Your task to perform on an android device: Do I have any events tomorrow? Image 0: 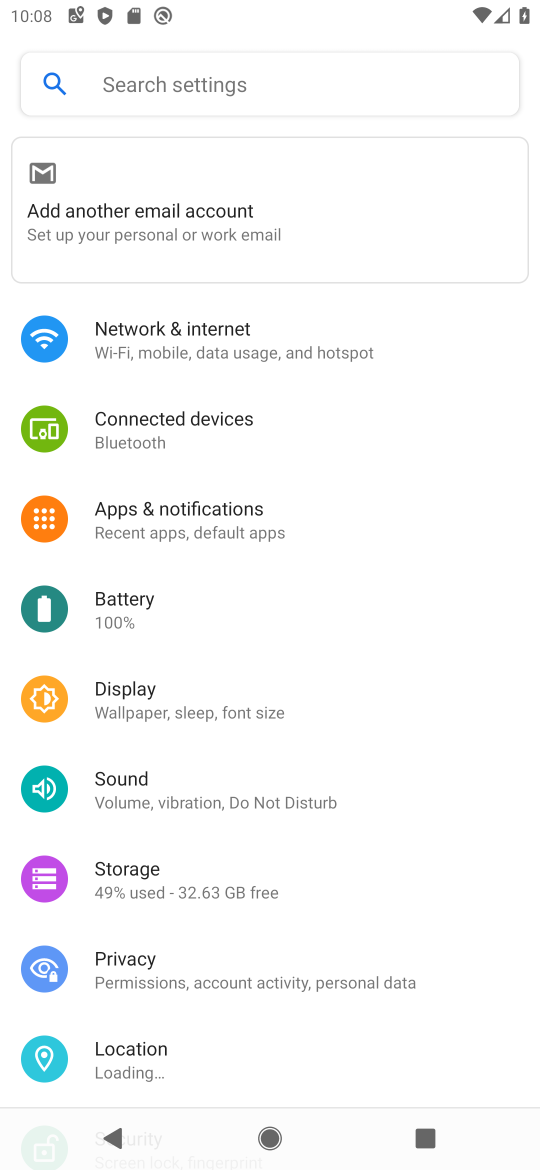
Step 0: press home button
Your task to perform on an android device: Do I have any events tomorrow? Image 1: 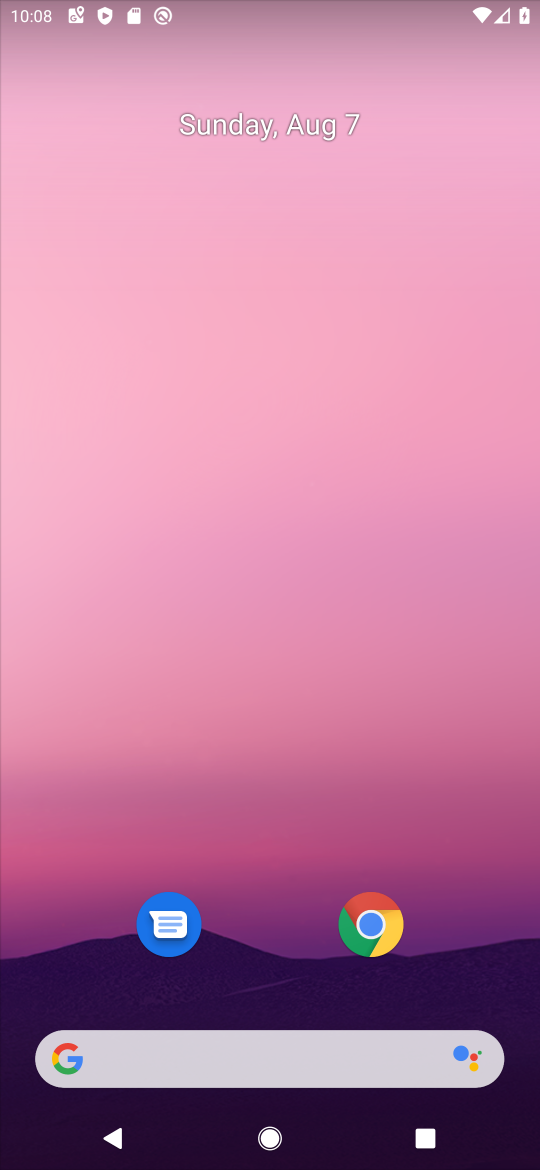
Step 1: drag from (482, 950) to (388, 482)
Your task to perform on an android device: Do I have any events tomorrow? Image 2: 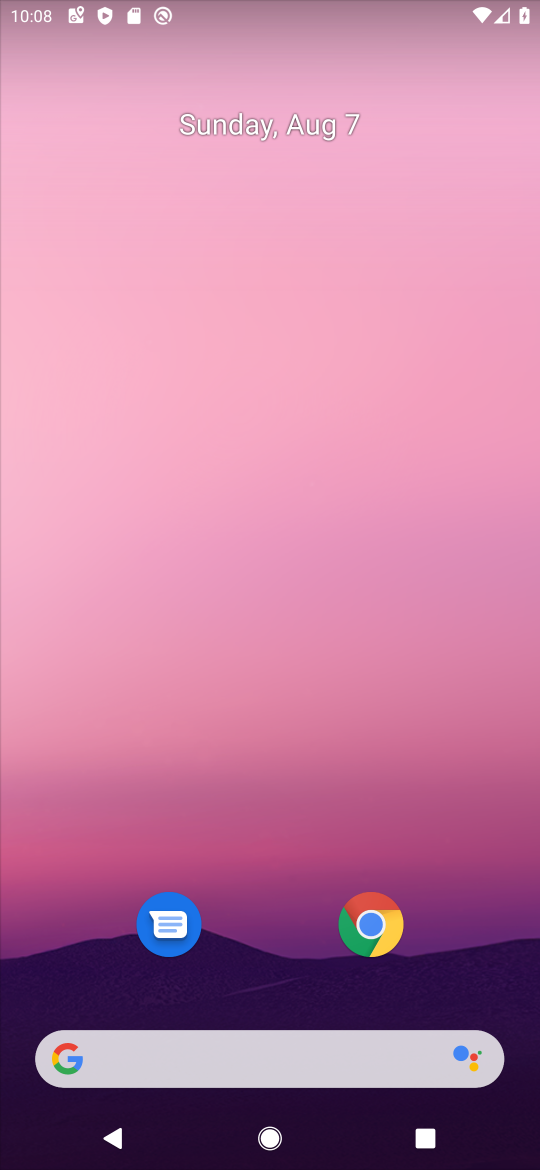
Step 2: drag from (487, 937) to (361, 393)
Your task to perform on an android device: Do I have any events tomorrow? Image 3: 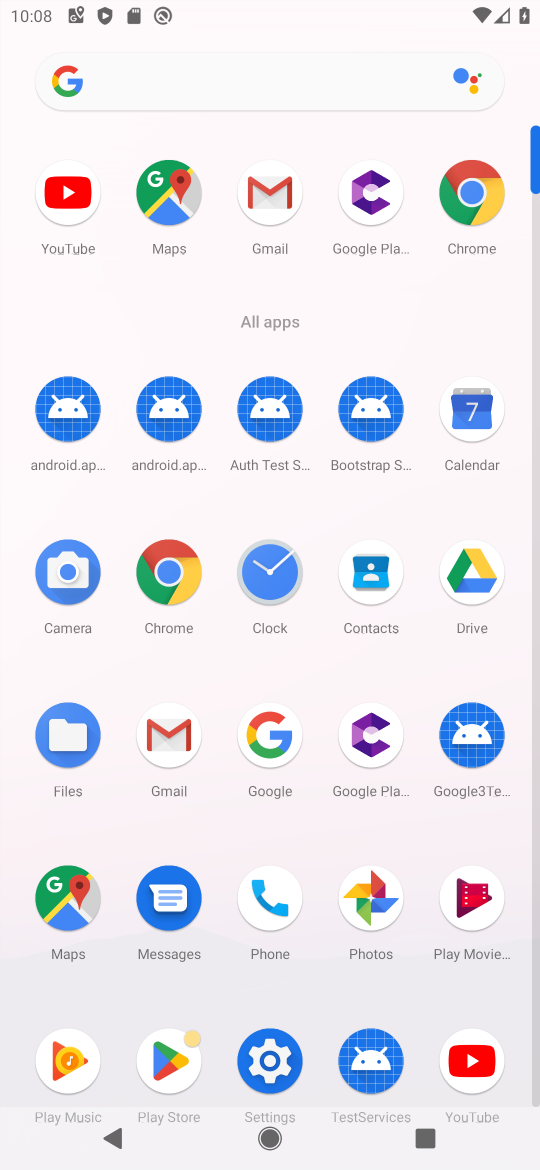
Step 3: click (473, 442)
Your task to perform on an android device: Do I have any events tomorrow? Image 4: 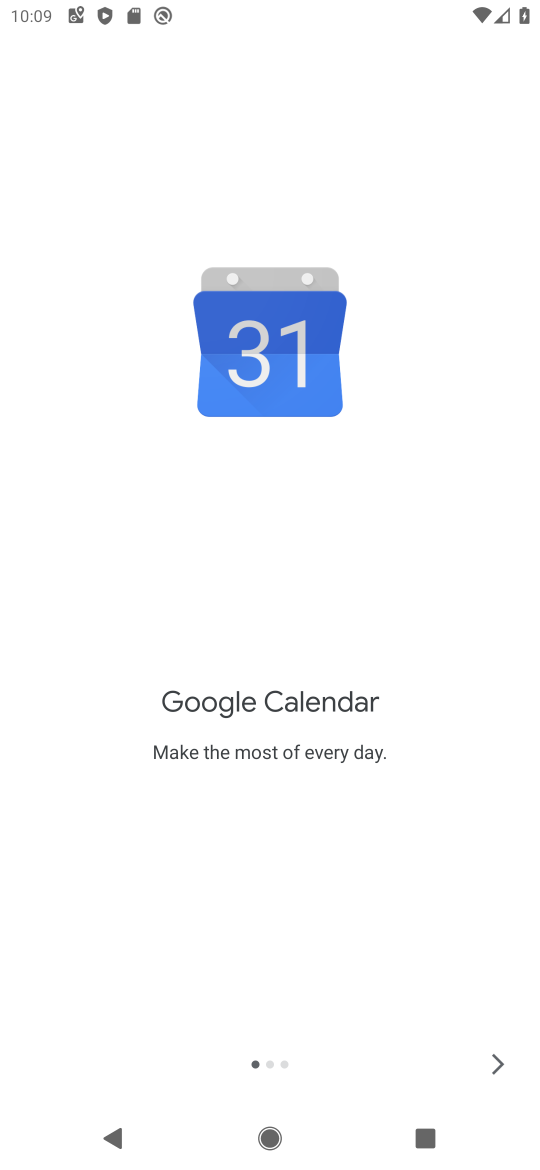
Step 4: click (503, 1074)
Your task to perform on an android device: Do I have any events tomorrow? Image 5: 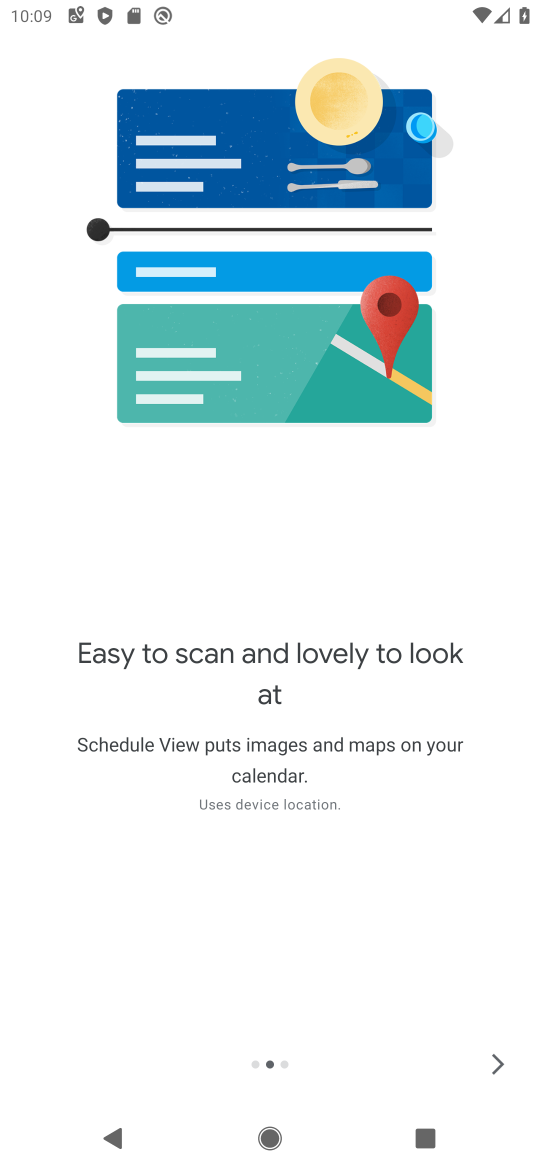
Step 5: click (503, 1074)
Your task to perform on an android device: Do I have any events tomorrow? Image 6: 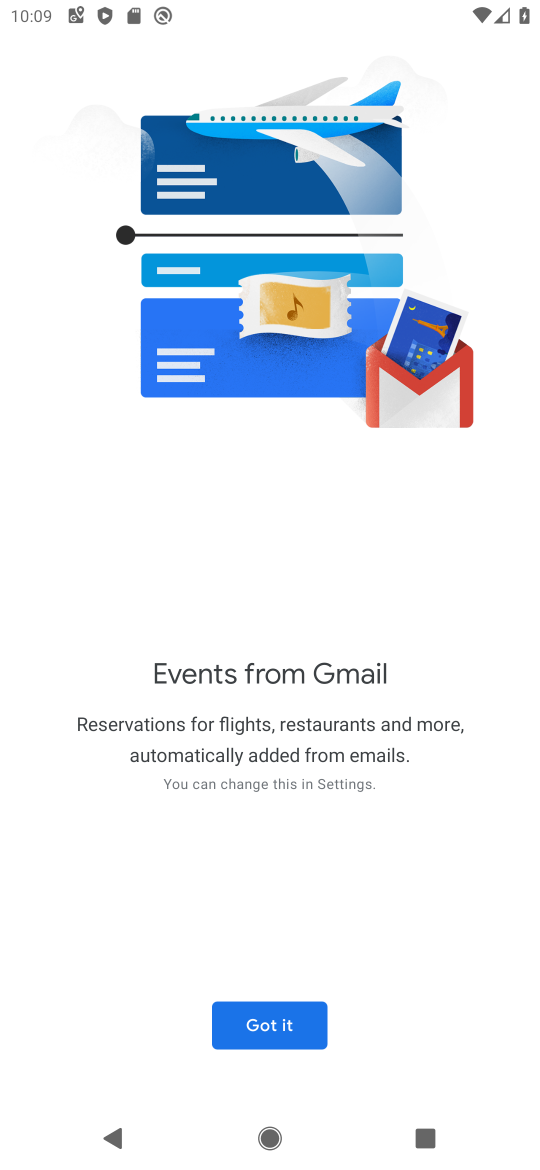
Step 6: click (281, 1029)
Your task to perform on an android device: Do I have any events tomorrow? Image 7: 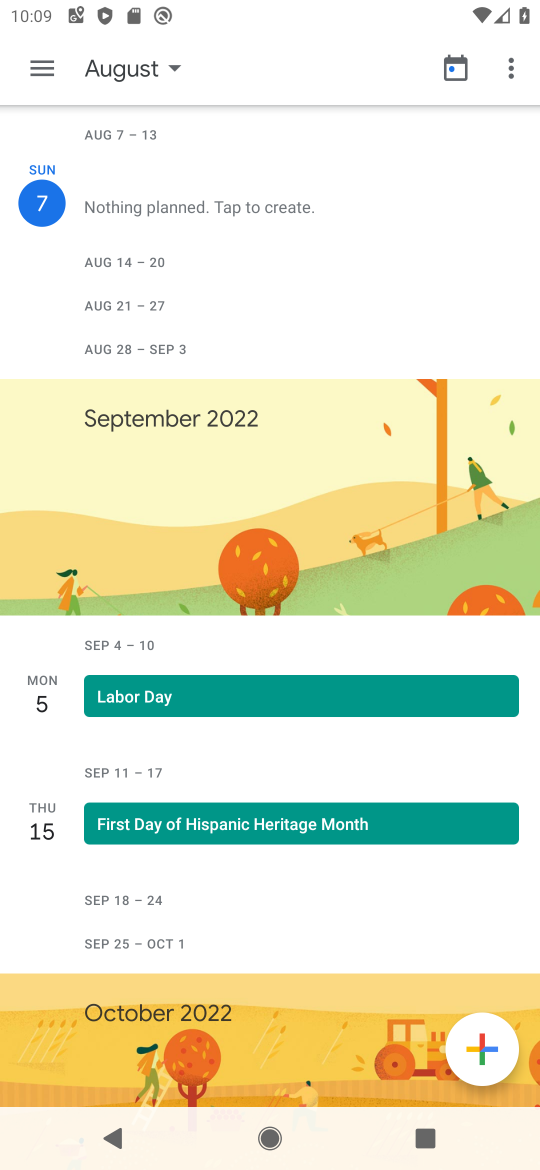
Step 7: click (28, 65)
Your task to perform on an android device: Do I have any events tomorrow? Image 8: 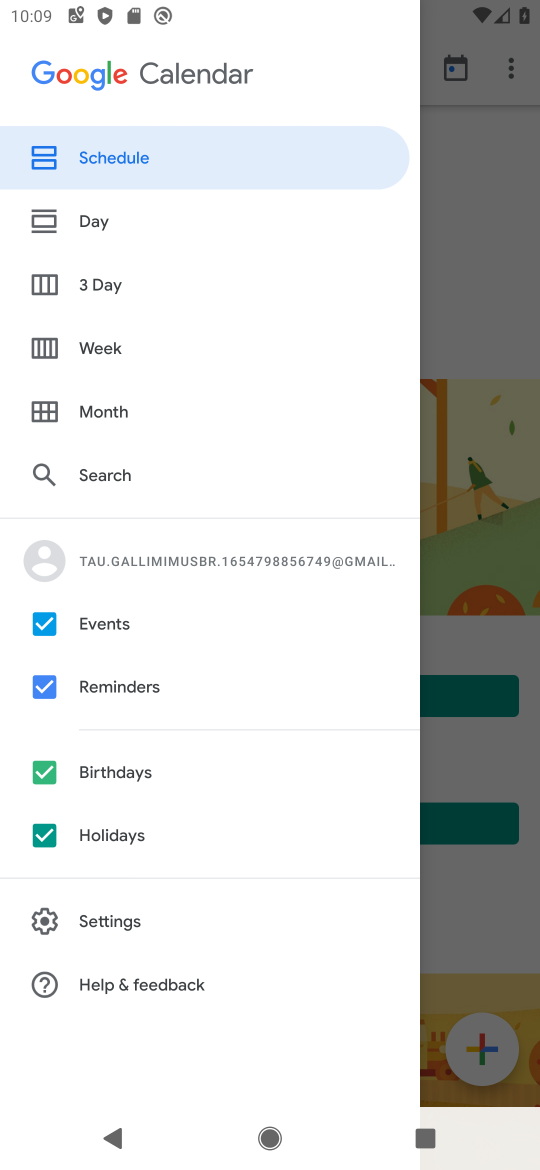
Step 8: click (95, 222)
Your task to perform on an android device: Do I have any events tomorrow? Image 9: 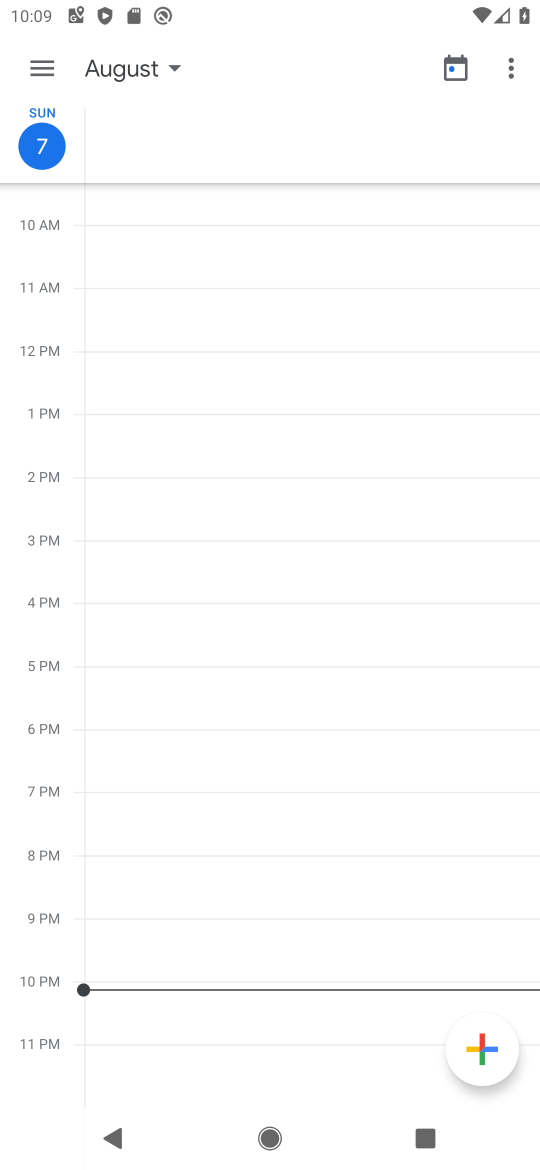
Step 9: click (167, 70)
Your task to perform on an android device: Do I have any events tomorrow? Image 10: 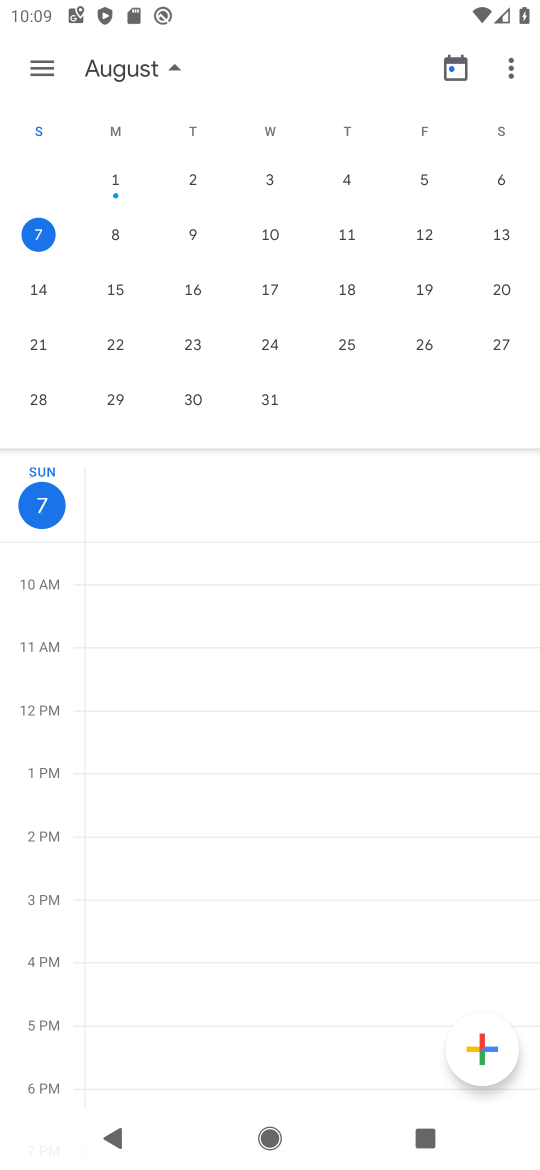
Step 10: click (114, 237)
Your task to perform on an android device: Do I have any events tomorrow? Image 11: 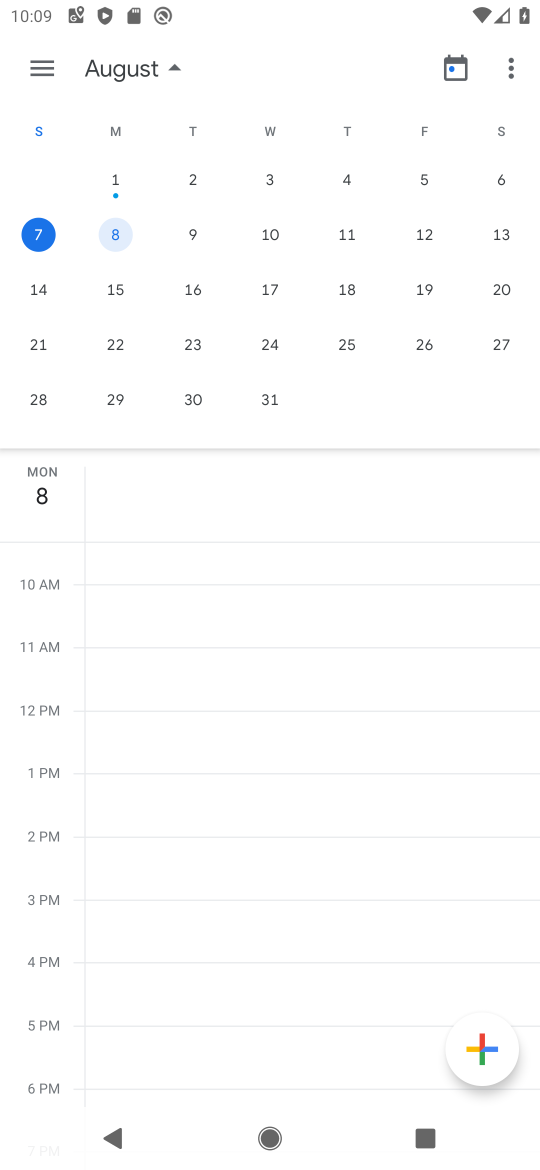
Step 11: task complete